Your task to perform on an android device: Open internet settings Image 0: 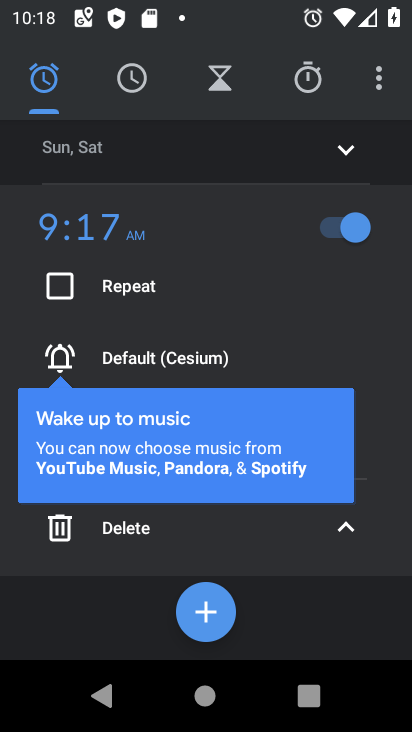
Step 0: press home button
Your task to perform on an android device: Open internet settings Image 1: 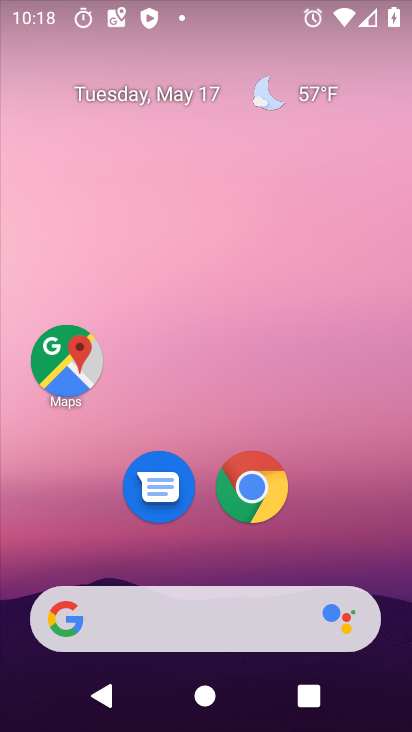
Step 1: drag from (227, 724) to (250, 156)
Your task to perform on an android device: Open internet settings Image 2: 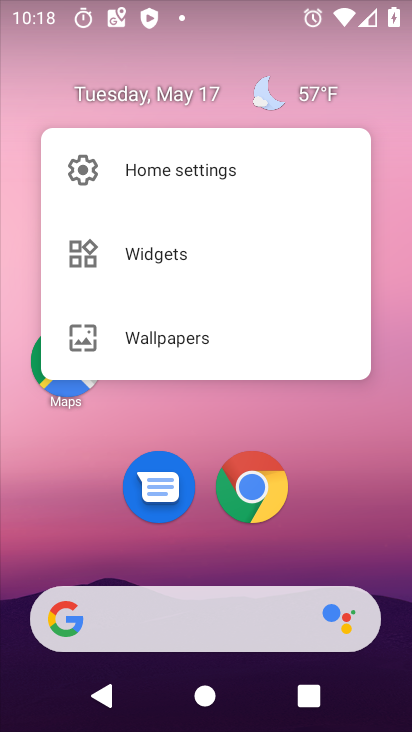
Step 2: click (311, 425)
Your task to perform on an android device: Open internet settings Image 3: 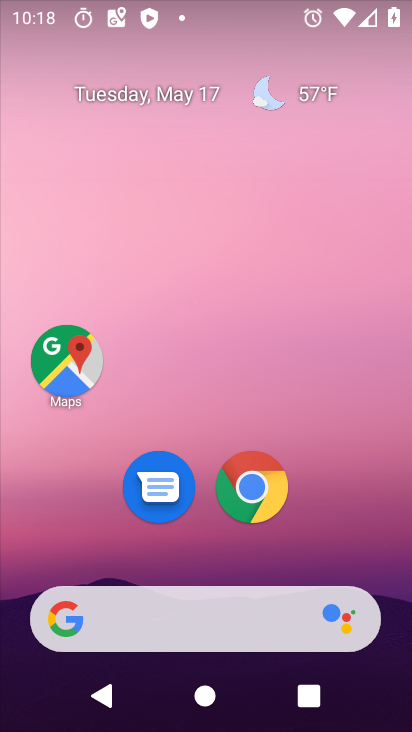
Step 3: drag from (228, 723) to (236, 43)
Your task to perform on an android device: Open internet settings Image 4: 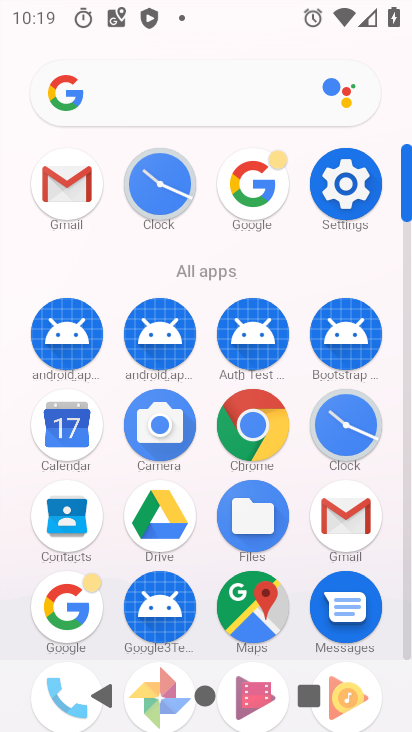
Step 4: click (345, 173)
Your task to perform on an android device: Open internet settings Image 5: 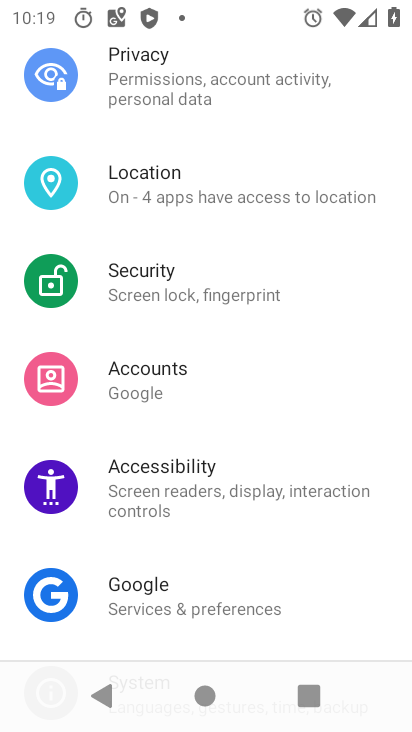
Step 5: drag from (285, 135) to (277, 622)
Your task to perform on an android device: Open internet settings Image 6: 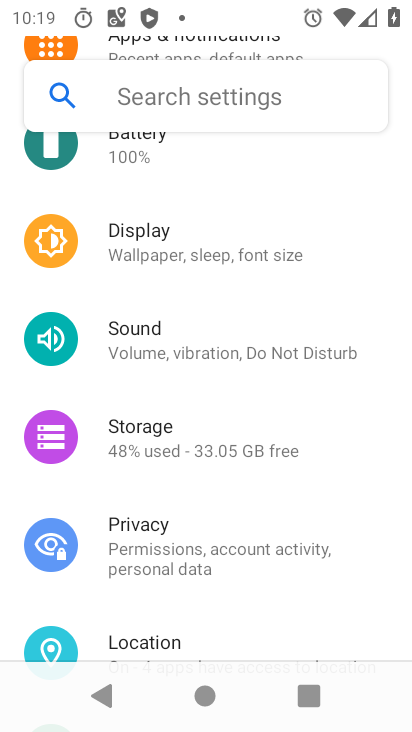
Step 6: drag from (238, 181) to (232, 546)
Your task to perform on an android device: Open internet settings Image 7: 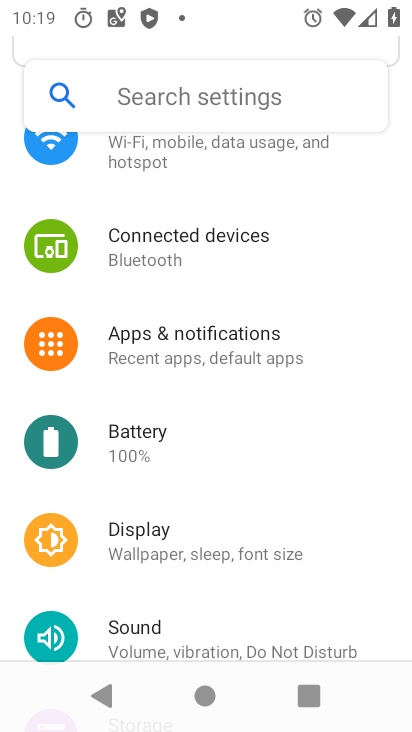
Step 7: drag from (211, 188) to (213, 553)
Your task to perform on an android device: Open internet settings Image 8: 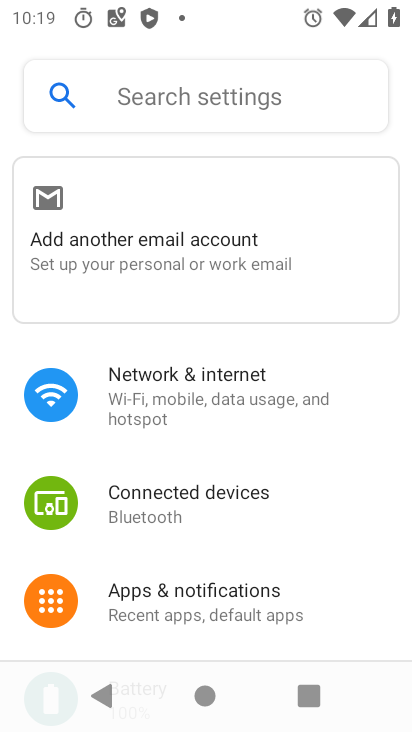
Step 8: click (173, 389)
Your task to perform on an android device: Open internet settings Image 9: 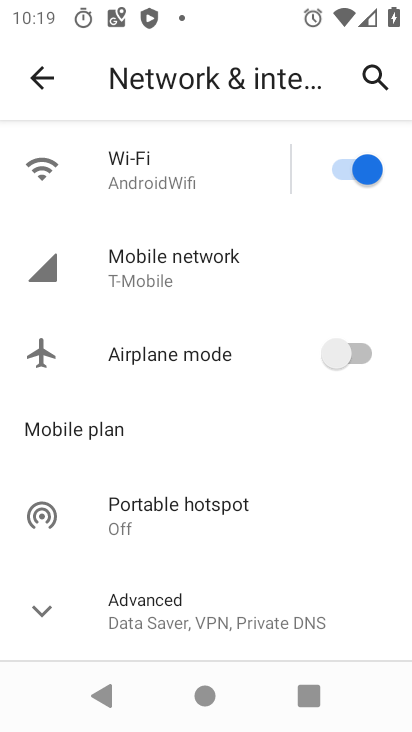
Step 9: task complete